Your task to perform on an android device: Open Yahoo.com Image 0: 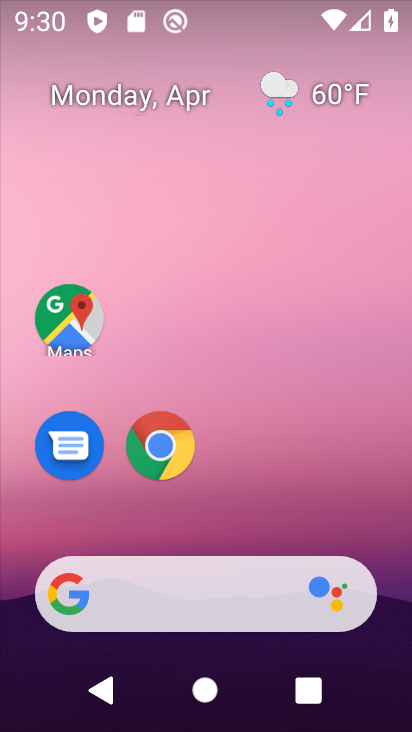
Step 0: click (166, 441)
Your task to perform on an android device: Open Yahoo.com Image 1: 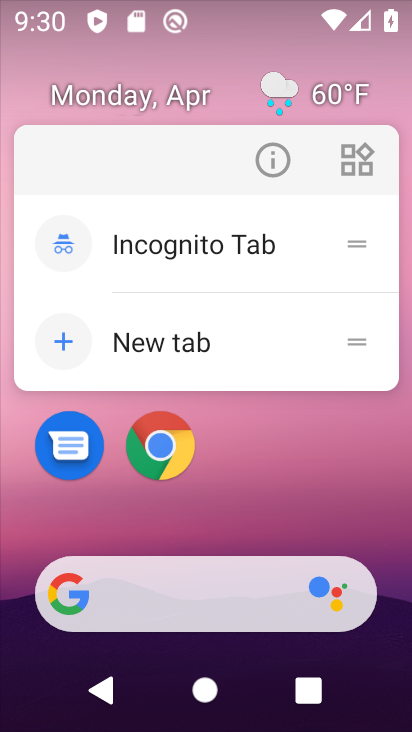
Step 1: click (166, 441)
Your task to perform on an android device: Open Yahoo.com Image 2: 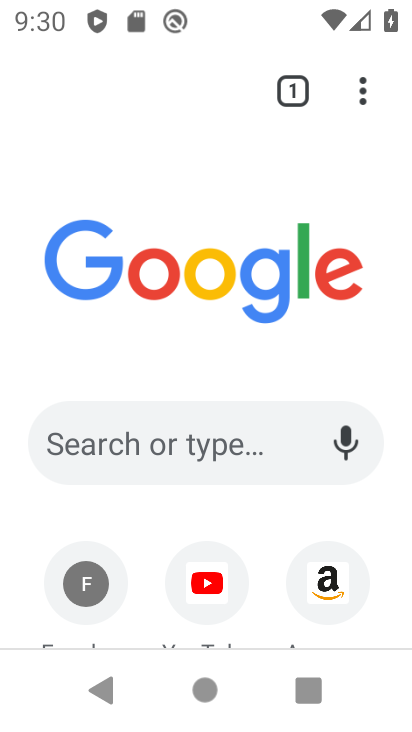
Step 2: click (166, 436)
Your task to perform on an android device: Open Yahoo.com Image 3: 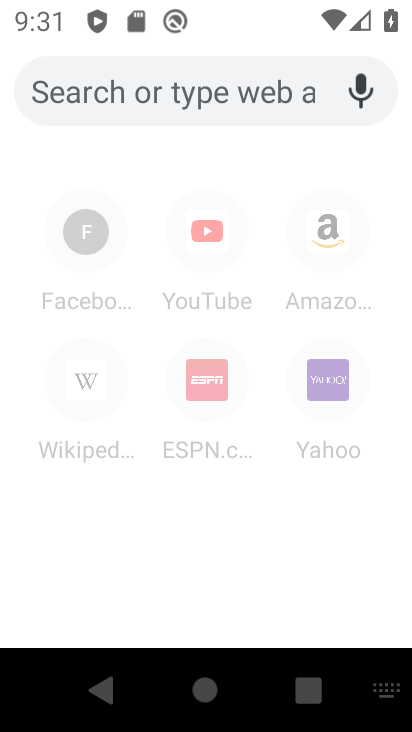
Step 3: type "yahoo.com"
Your task to perform on an android device: Open Yahoo.com Image 4: 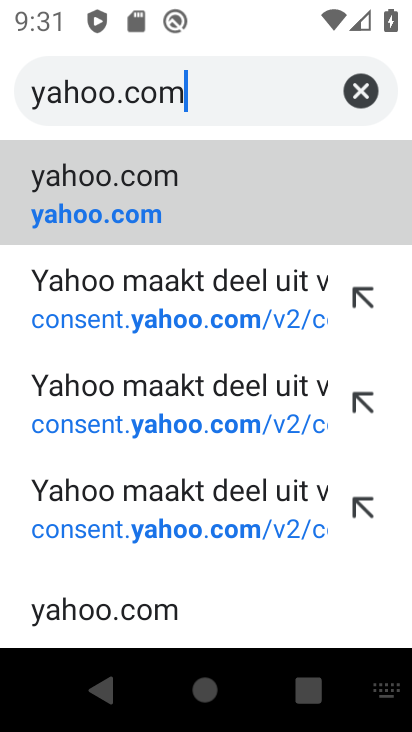
Step 4: click (147, 192)
Your task to perform on an android device: Open Yahoo.com Image 5: 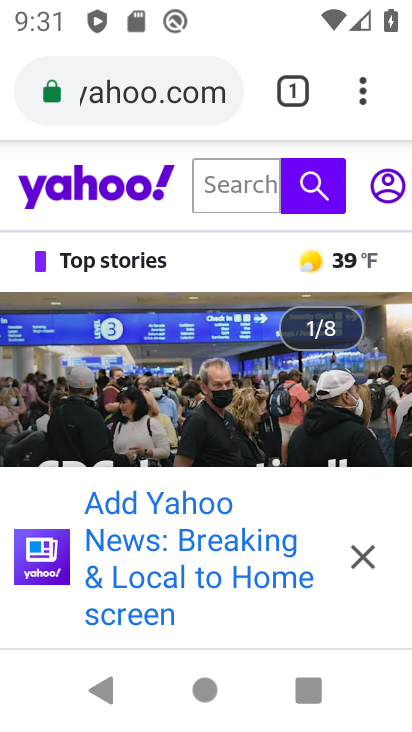
Step 5: task complete